Your task to perform on an android device: What's the weather today? Image 0: 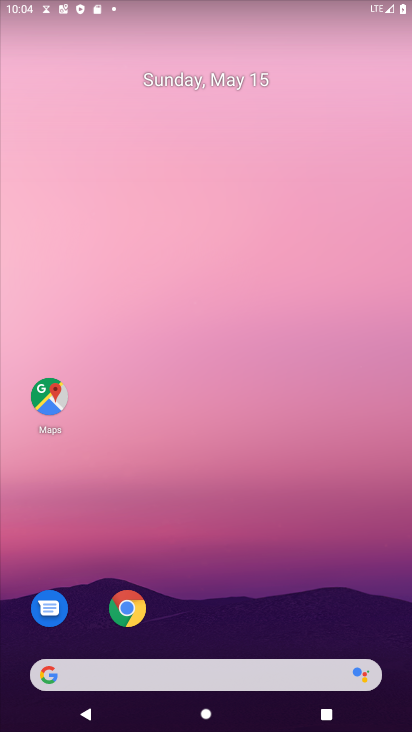
Step 0: drag from (281, 490) to (314, 48)
Your task to perform on an android device: What's the weather today? Image 1: 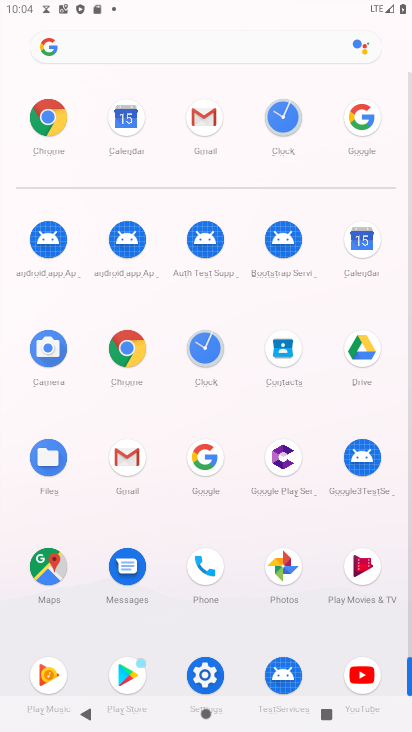
Step 1: click (354, 116)
Your task to perform on an android device: What's the weather today? Image 2: 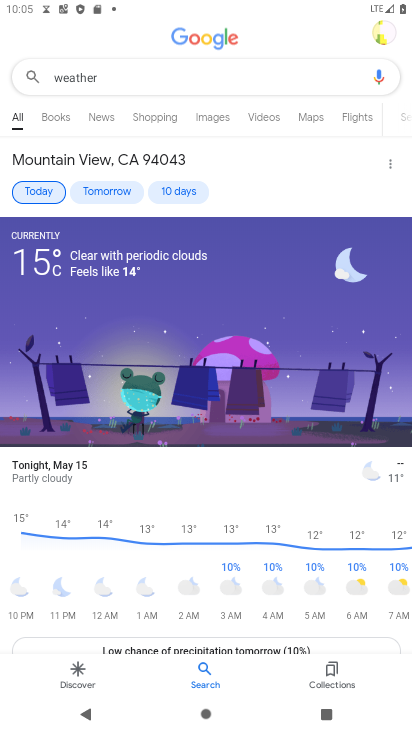
Step 2: task complete